Your task to perform on an android device: turn on sleep mode Image 0: 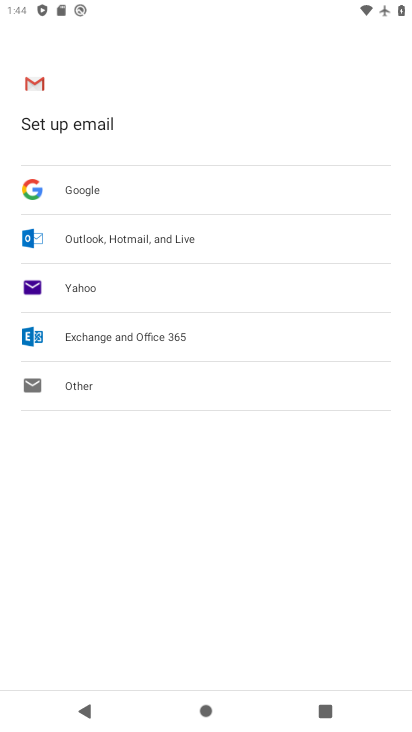
Step 0: press home button
Your task to perform on an android device: turn on sleep mode Image 1: 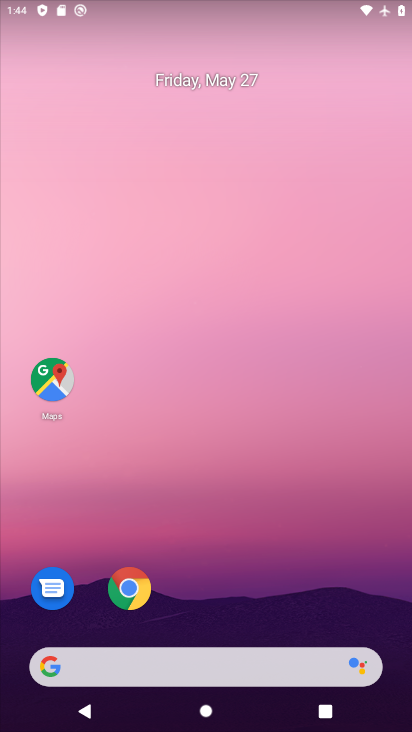
Step 1: drag from (323, 597) to (324, 24)
Your task to perform on an android device: turn on sleep mode Image 2: 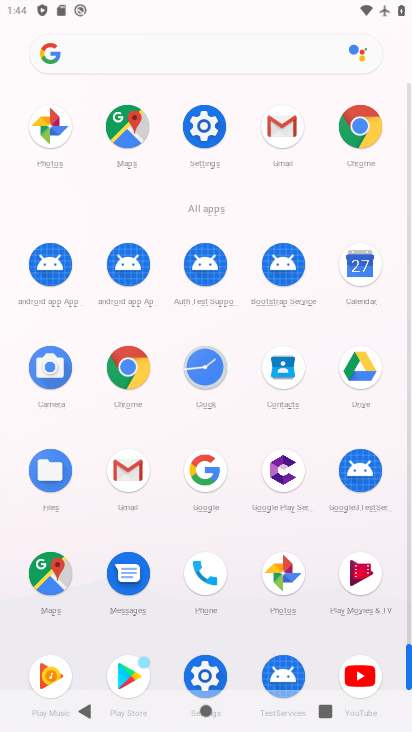
Step 2: click (203, 672)
Your task to perform on an android device: turn on sleep mode Image 3: 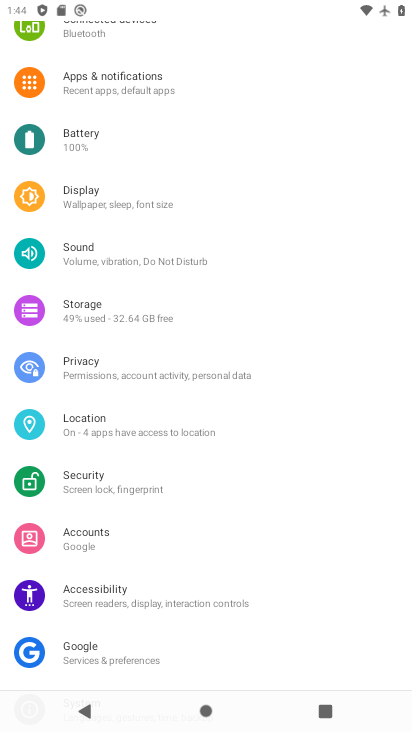
Step 3: click (100, 189)
Your task to perform on an android device: turn on sleep mode Image 4: 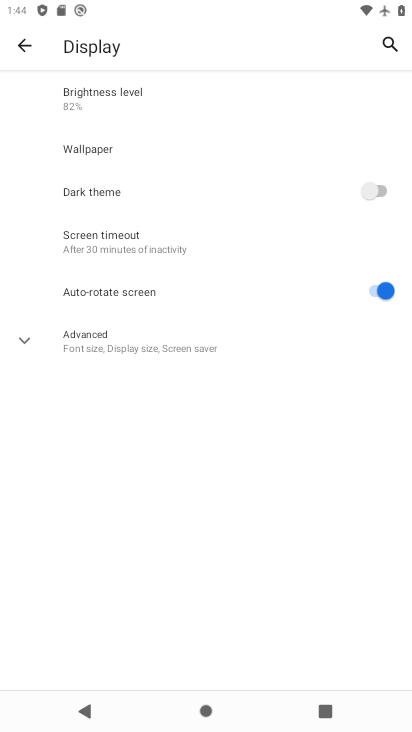
Step 4: click (20, 333)
Your task to perform on an android device: turn on sleep mode Image 5: 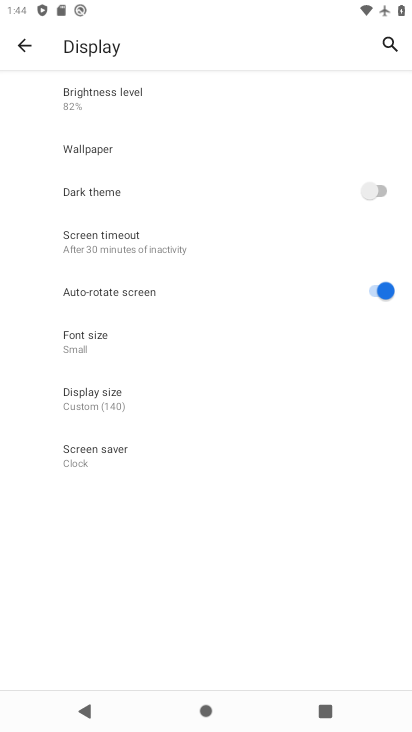
Step 5: task complete